Your task to perform on an android device: turn on wifi Image 0: 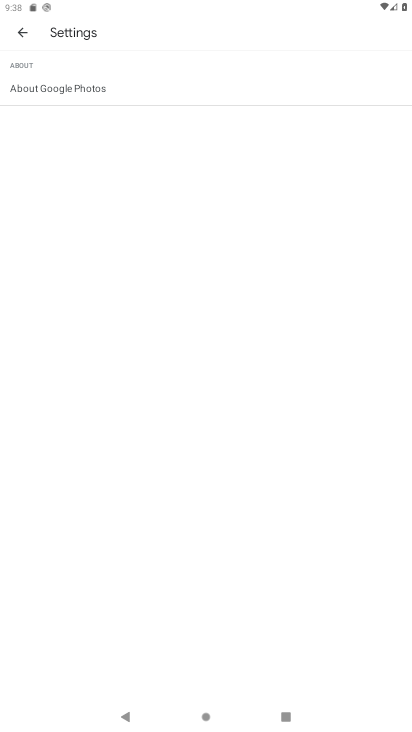
Step 0: press home button
Your task to perform on an android device: turn on wifi Image 1: 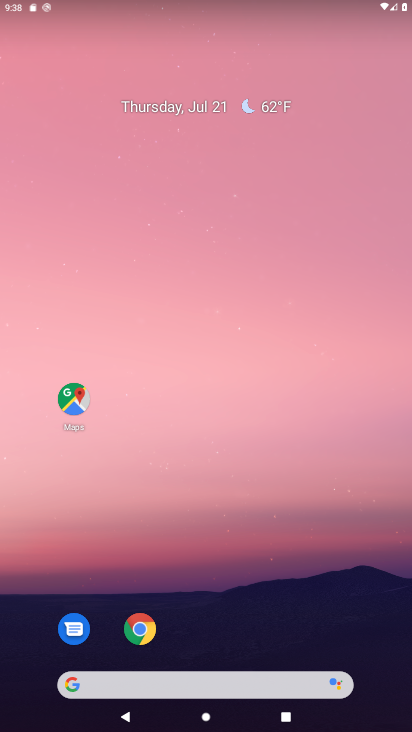
Step 1: drag from (166, 632) to (181, 267)
Your task to perform on an android device: turn on wifi Image 2: 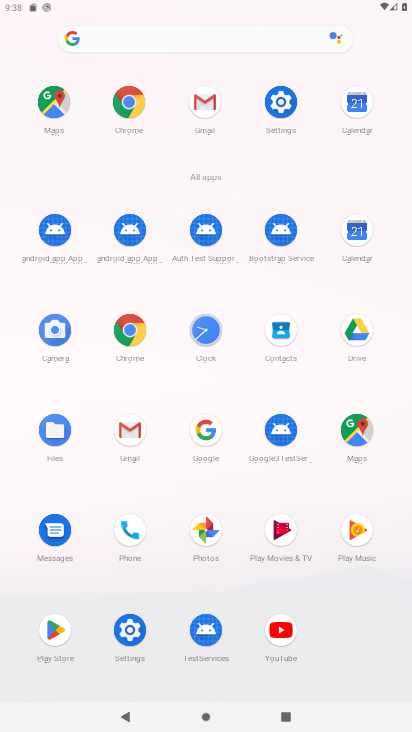
Step 2: click (286, 101)
Your task to perform on an android device: turn on wifi Image 3: 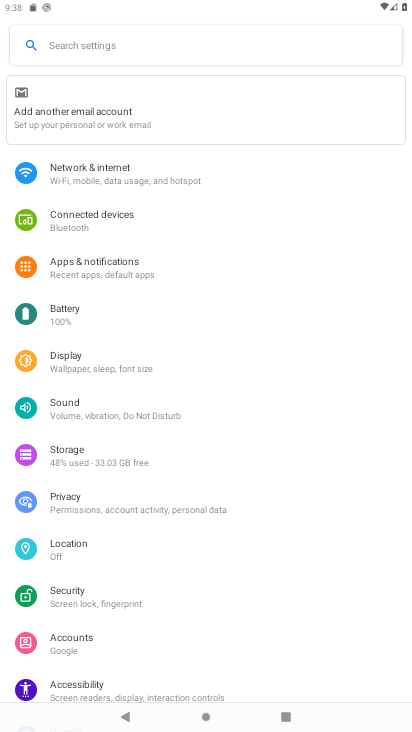
Step 3: click (126, 187)
Your task to perform on an android device: turn on wifi Image 4: 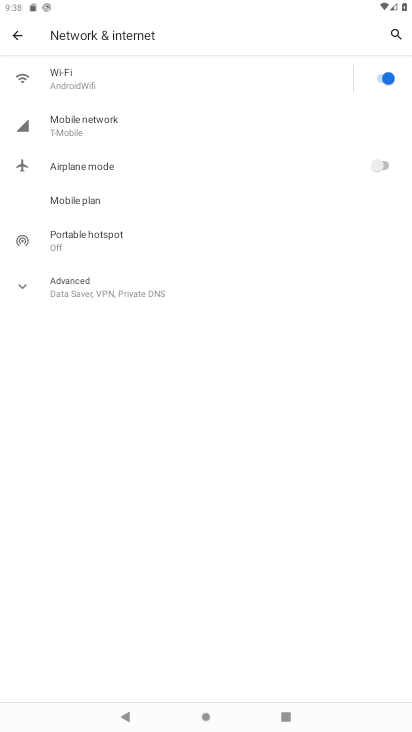
Step 4: click (93, 64)
Your task to perform on an android device: turn on wifi Image 5: 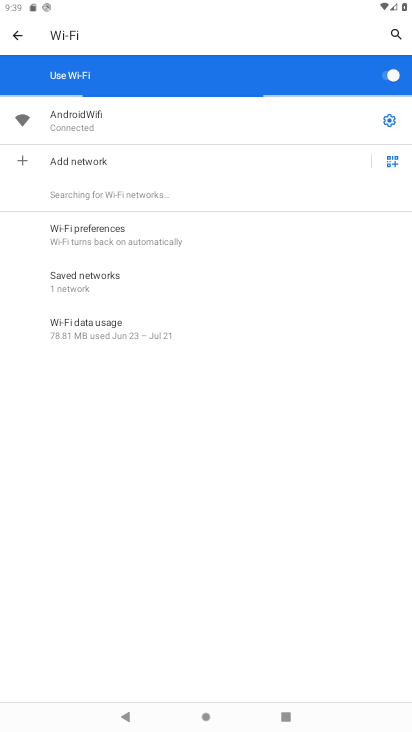
Step 5: task complete